Your task to perform on an android device: make emails show in primary in the gmail app Image 0: 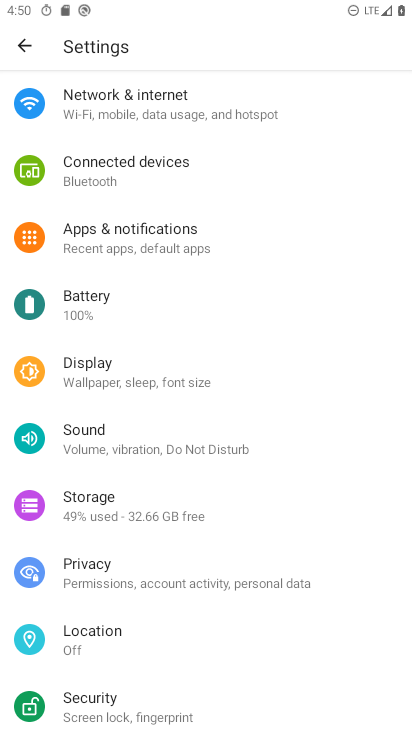
Step 0: press home button
Your task to perform on an android device: make emails show in primary in the gmail app Image 1: 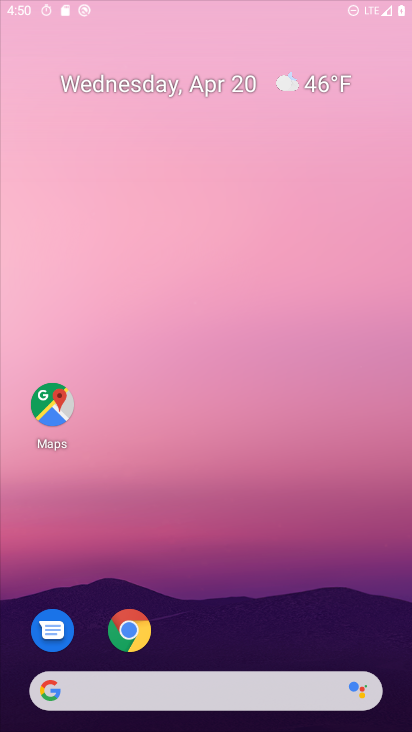
Step 1: drag from (293, 615) to (310, 84)
Your task to perform on an android device: make emails show in primary in the gmail app Image 2: 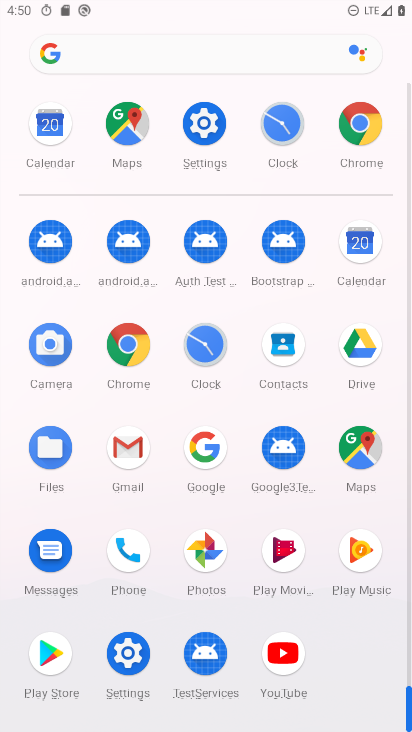
Step 2: click (130, 451)
Your task to perform on an android device: make emails show in primary in the gmail app Image 3: 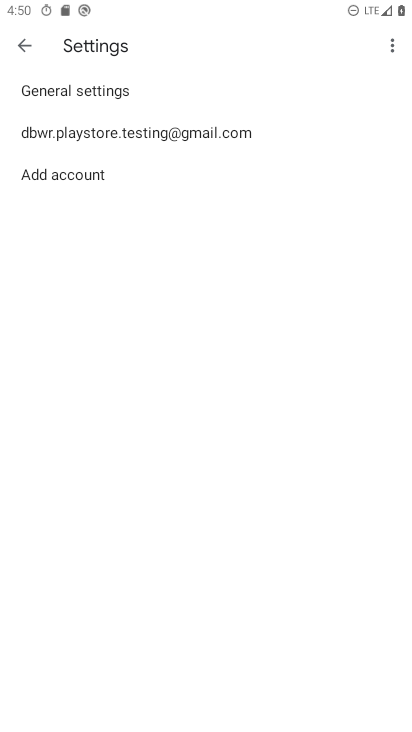
Step 3: click (121, 125)
Your task to perform on an android device: make emails show in primary in the gmail app Image 4: 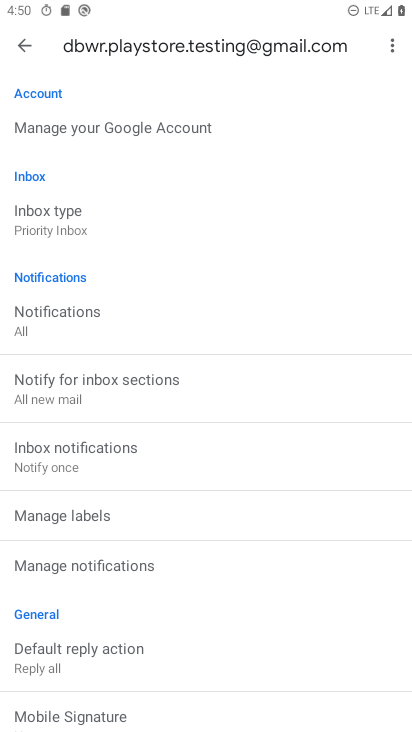
Step 4: click (71, 223)
Your task to perform on an android device: make emails show in primary in the gmail app Image 5: 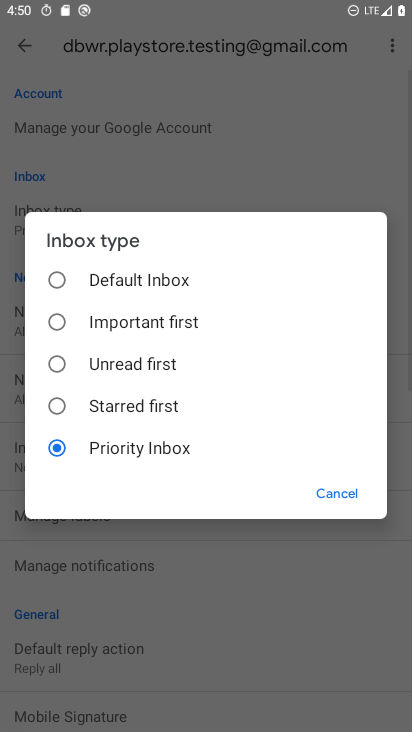
Step 5: click (138, 284)
Your task to perform on an android device: make emails show in primary in the gmail app Image 6: 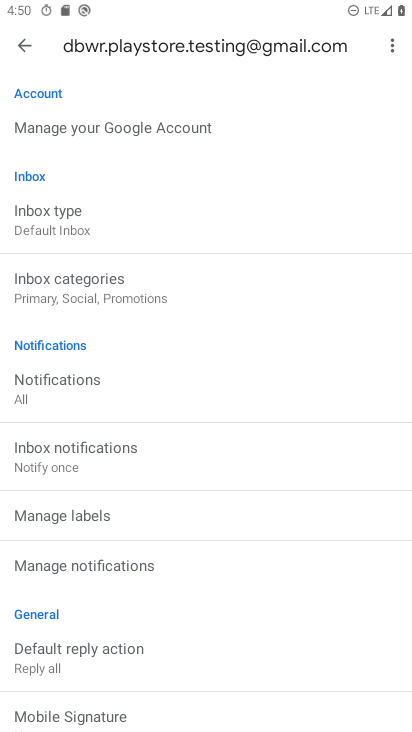
Step 6: click (138, 284)
Your task to perform on an android device: make emails show in primary in the gmail app Image 7: 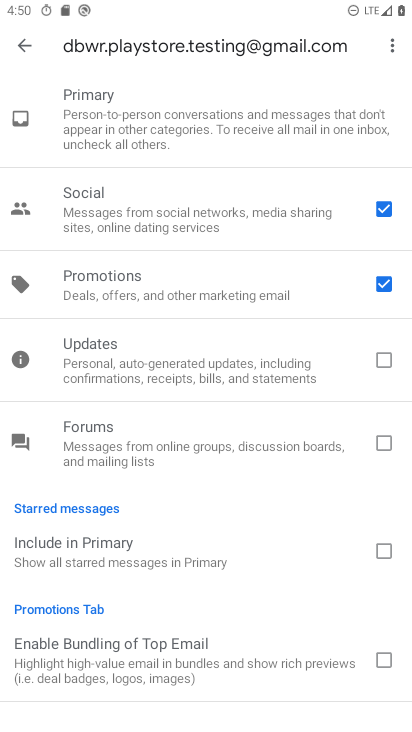
Step 7: click (383, 211)
Your task to perform on an android device: make emails show in primary in the gmail app Image 8: 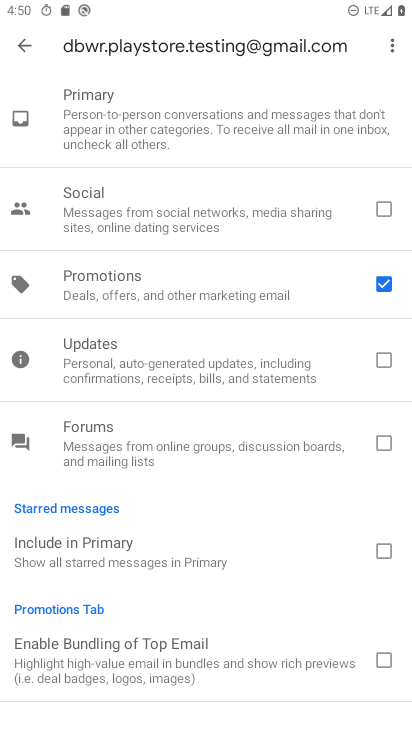
Step 8: click (386, 279)
Your task to perform on an android device: make emails show in primary in the gmail app Image 9: 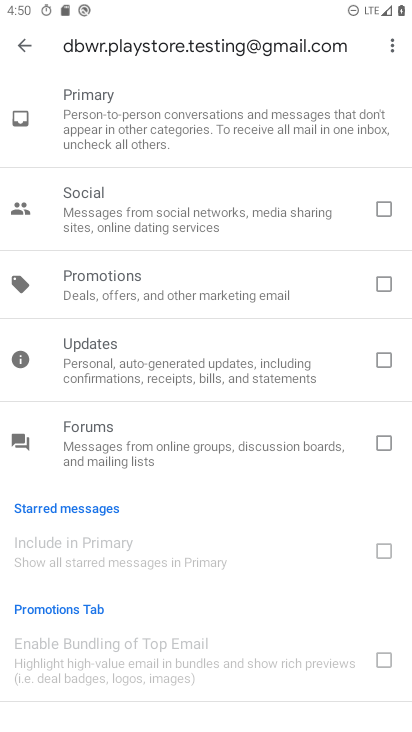
Step 9: task complete